Your task to perform on an android device: turn off smart reply in the gmail app Image 0: 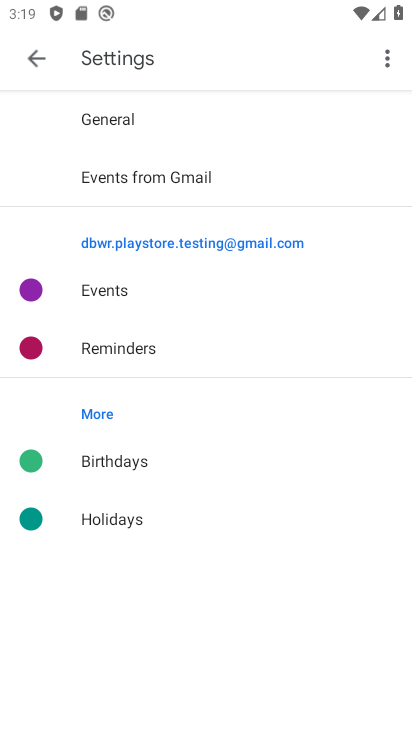
Step 0: drag from (300, 585) to (347, 127)
Your task to perform on an android device: turn off smart reply in the gmail app Image 1: 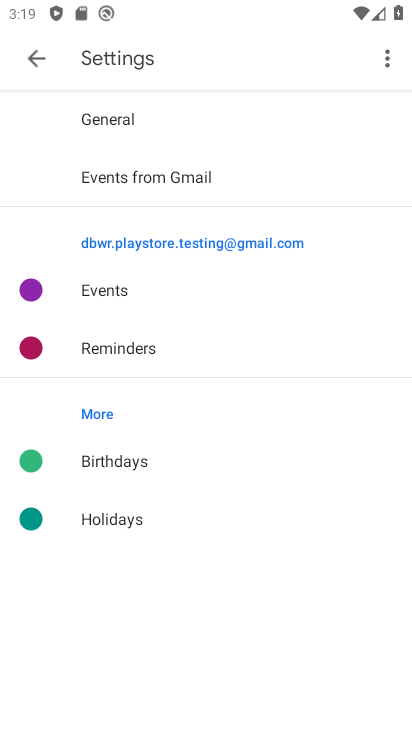
Step 1: press home button
Your task to perform on an android device: turn off smart reply in the gmail app Image 2: 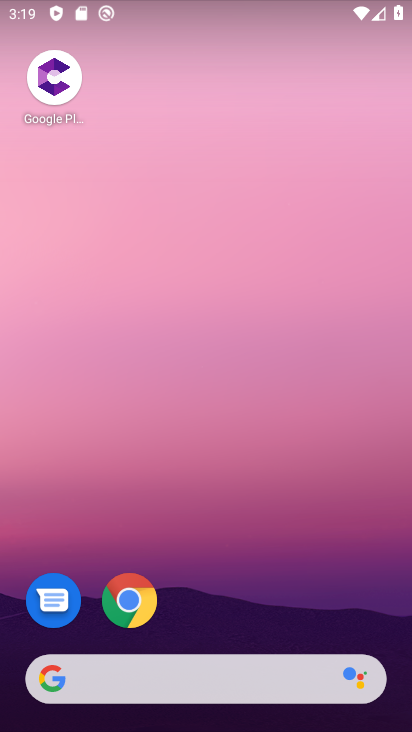
Step 2: drag from (307, 584) to (388, 163)
Your task to perform on an android device: turn off smart reply in the gmail app Image 3: 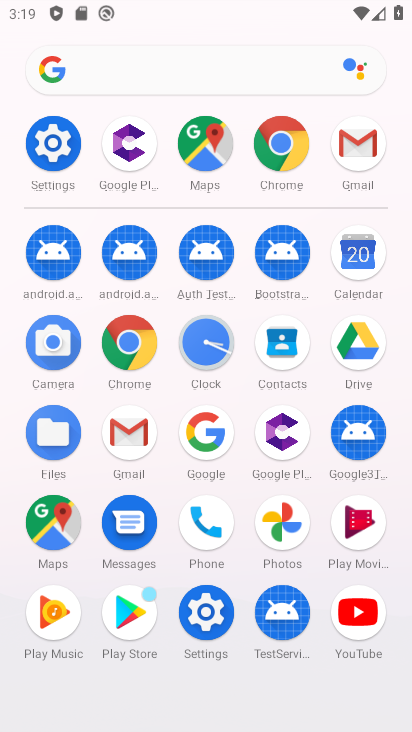
Step 3: click (379, 152)
Your task to perform on an android device: turn off smart reply in the gmail app Image 4: 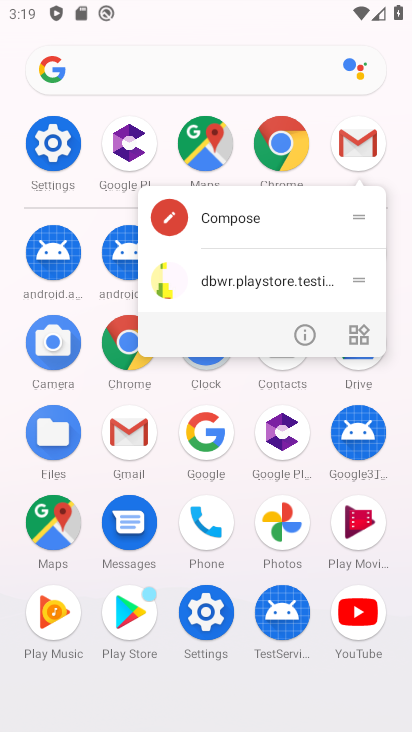
Step 4: click (379, 152)
Your task to perform on an android device: turn off smart reply in the gmail app Image 5: 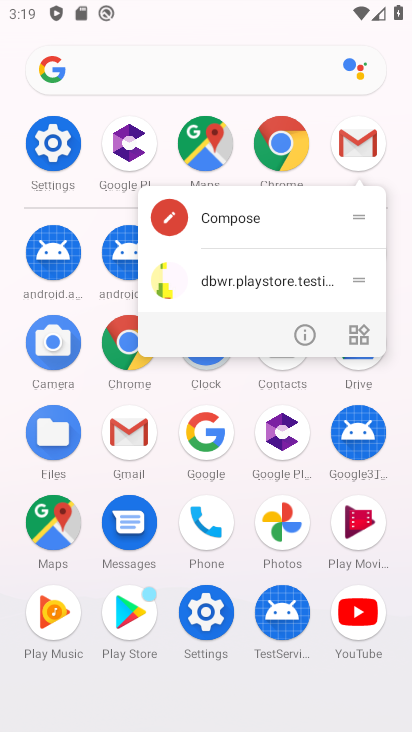
Step 5: click (367, 146)
Your task to perform on an android device: turn off smart reply in the gmail app Image 6: 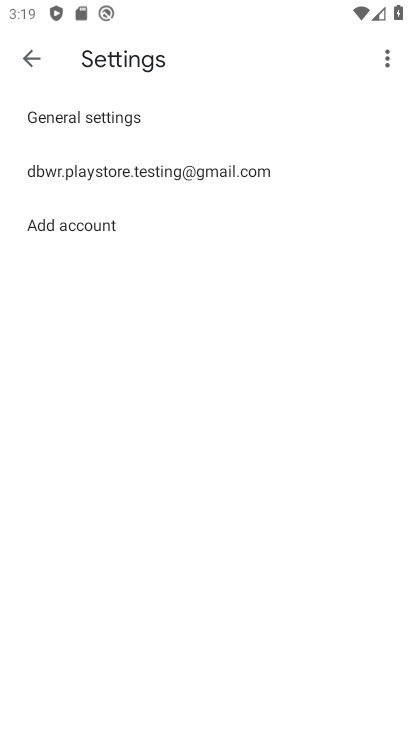
Step 6: click (74, 182)
Your task to perform on an android device: turn off smart reply in the gmail app Image 7: 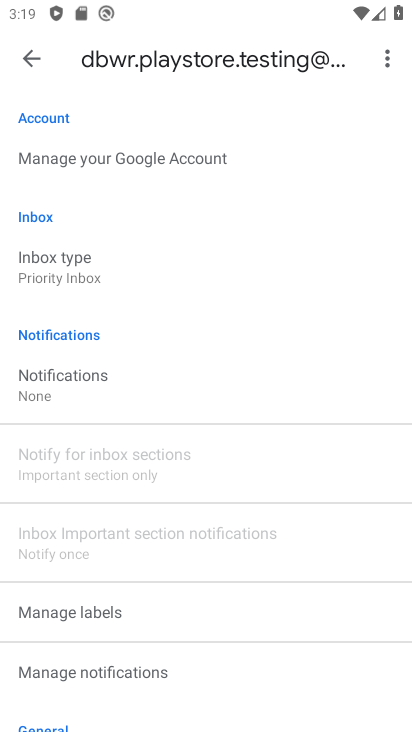
Step 7: task complete